Your task to perform on an android device: Open Chrome and go to settings Image 0: 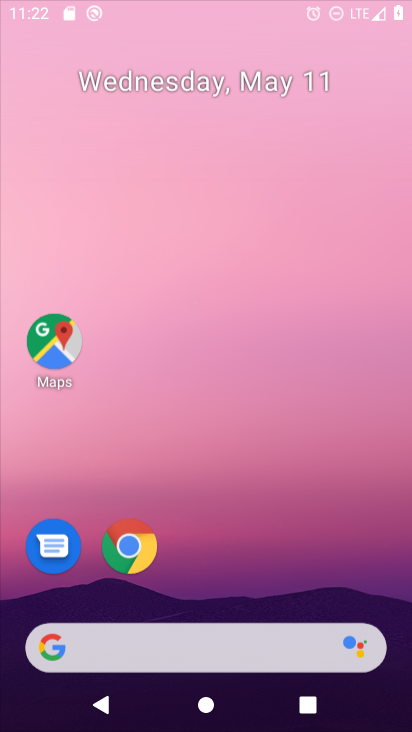
Step 0: drag from (391, 607) to (207, 0)
Your task to perform on an android device: Open Chrome and go to settings Image 1: 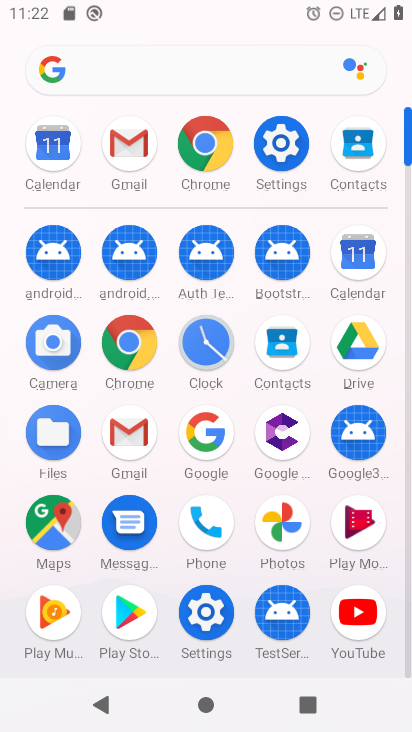
Step 1: click (195, 151)
Your task to perform on an android device: Open Chrome and go to settings Image 2: 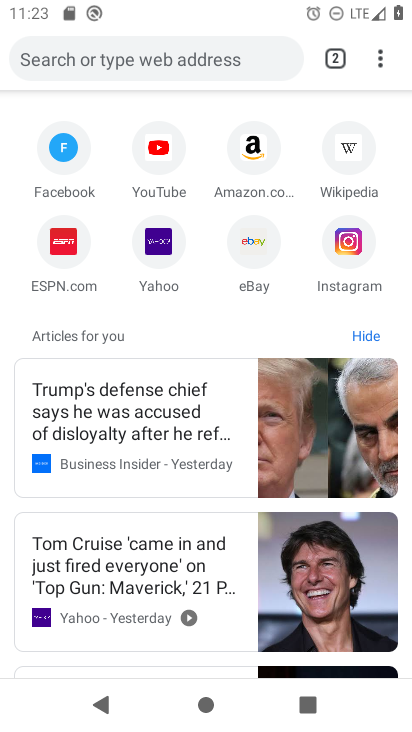
Step 2: click (377, 53)
Your task to perform on an android device: Open Chrome and go to settings Image 3: 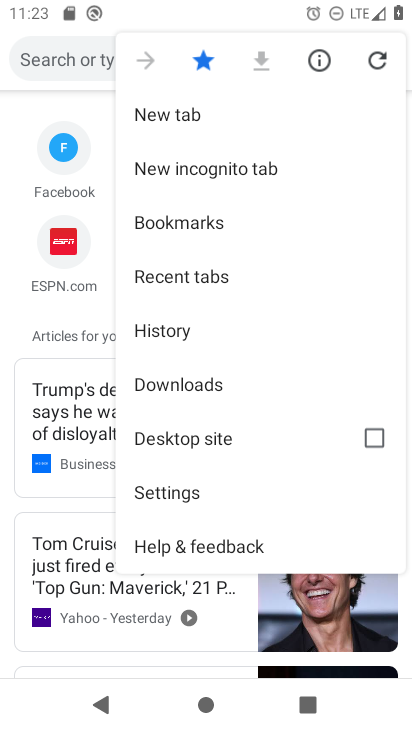
Step 3: click (222, 484)
Your task to perform on an android device: Open Chrome and go to settings Image 4: 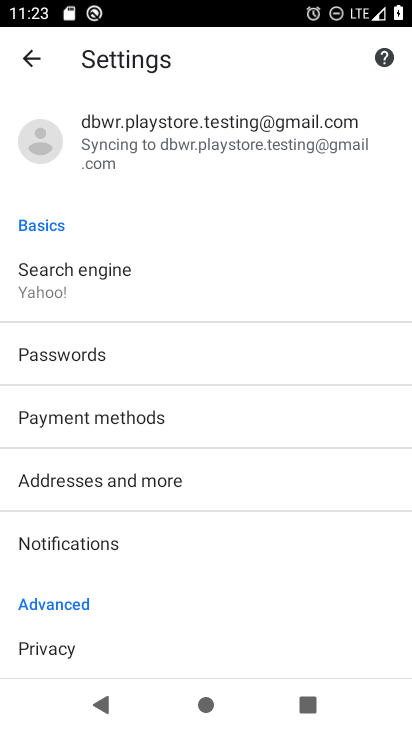
Step 4: task complete